Your task to perform on an android device: turn off airplane mode Image 0: 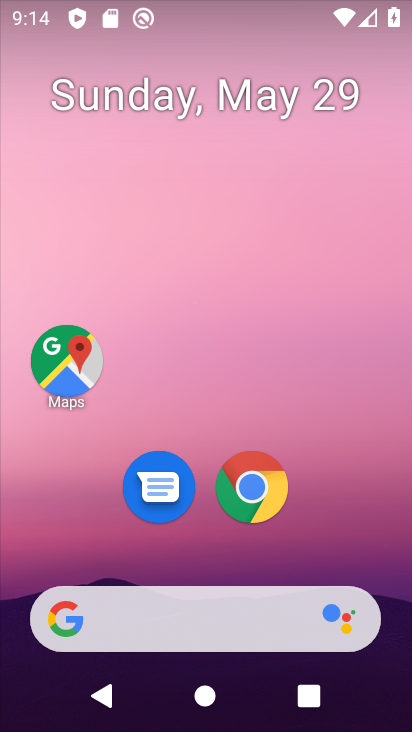
Step 0: drag from (384, 663) to (347, 230)
Your task to perform on an android device: turn off airplane mode Image 1: 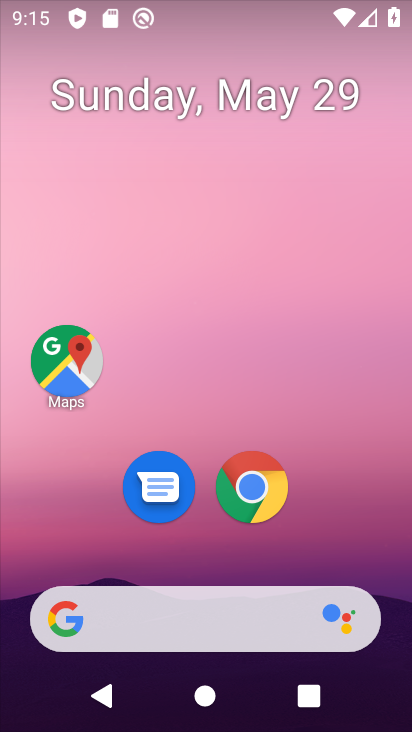
Step 1: drag from (388, 726) to (334, 122)
Your task to perform on an android device: turn off airplane mode Image 2: 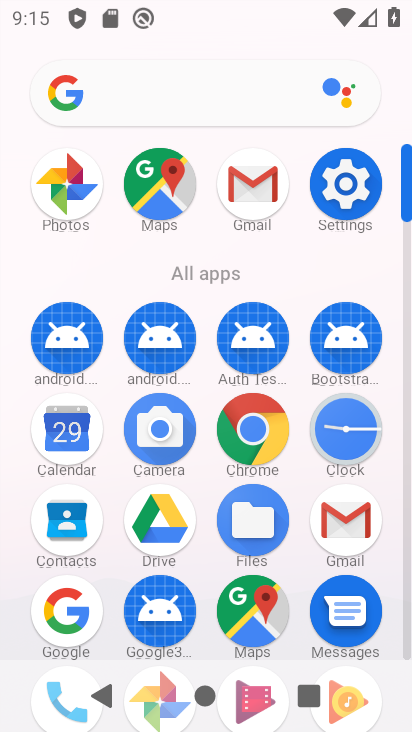
Step 2: click (345, 184)
Your task to perform on an android device: turn off airplane mode Image 3: 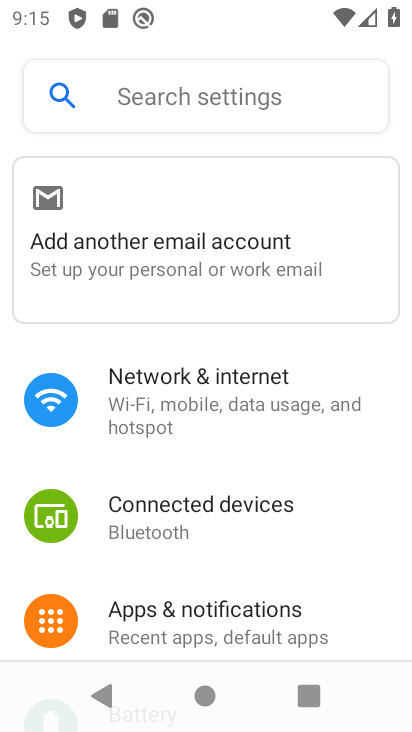
Step 3: click (157, 395)
Your task to perform on an android device: turn off airplane mode Image 4: 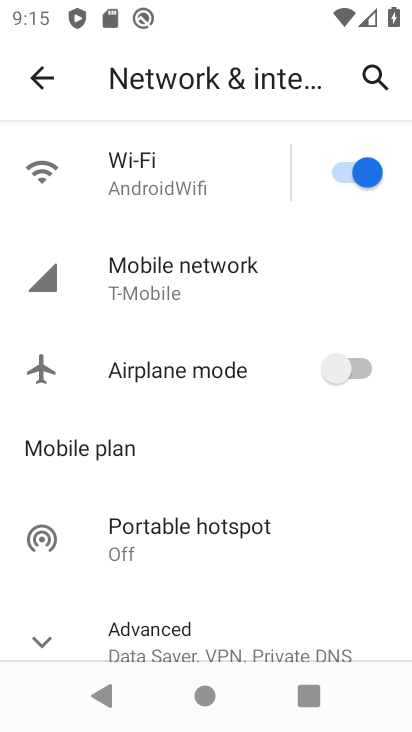
Step 4: task complete